Your task to perform on an android device: Add logitech g502 to the cart on costco.com Image 0: 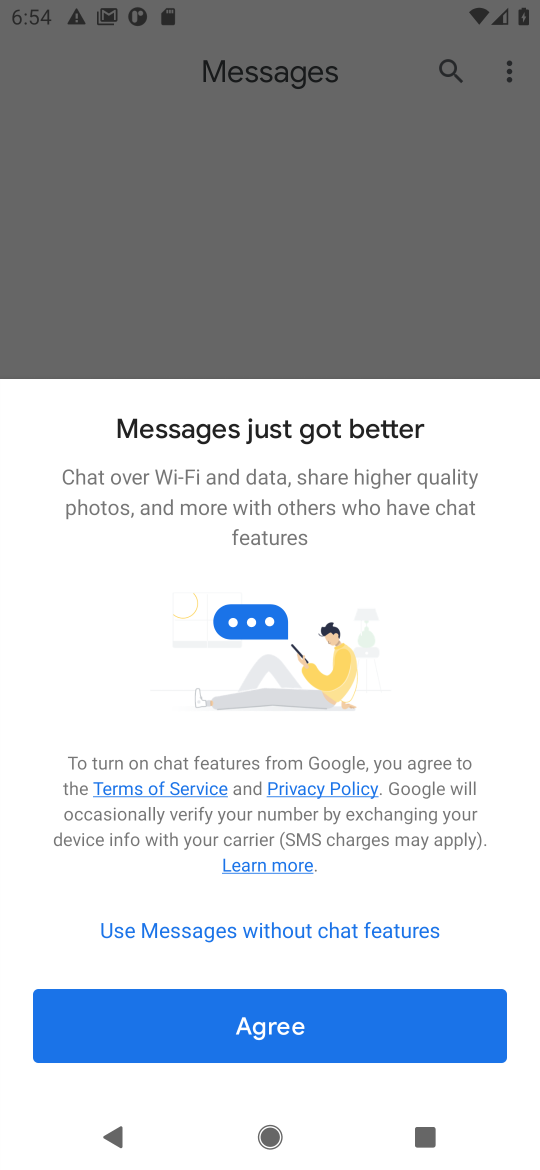
Step 0: press home button
Your task to perform on an android device: Add logitech g502 to the cart on costco.com Image 1: 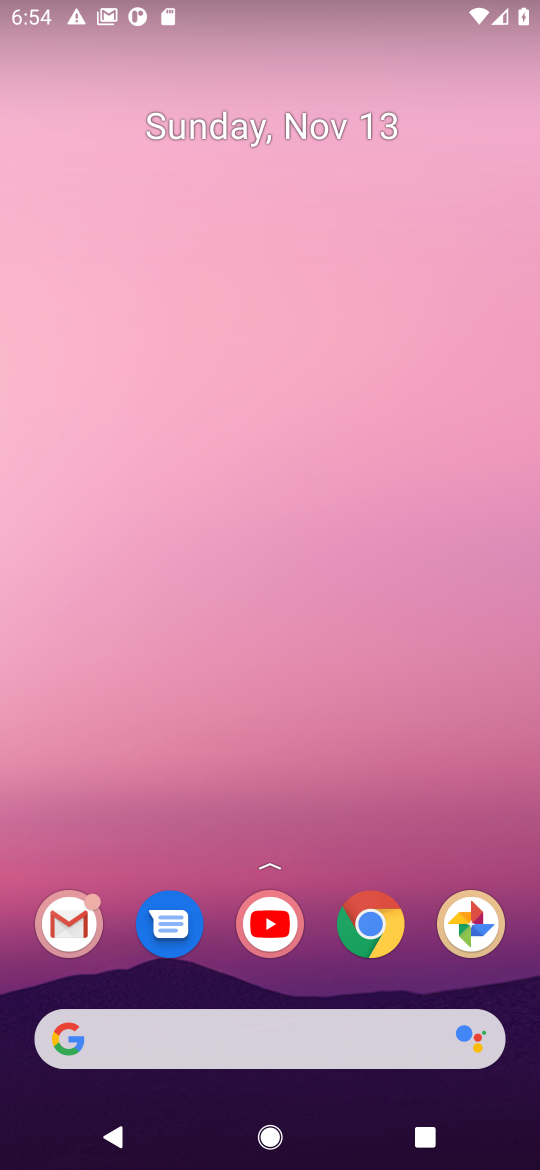
Step 1: click (376, 923)
Your task to perform on an android device: Add logitech g502 to the cart on costco.com Image 2: 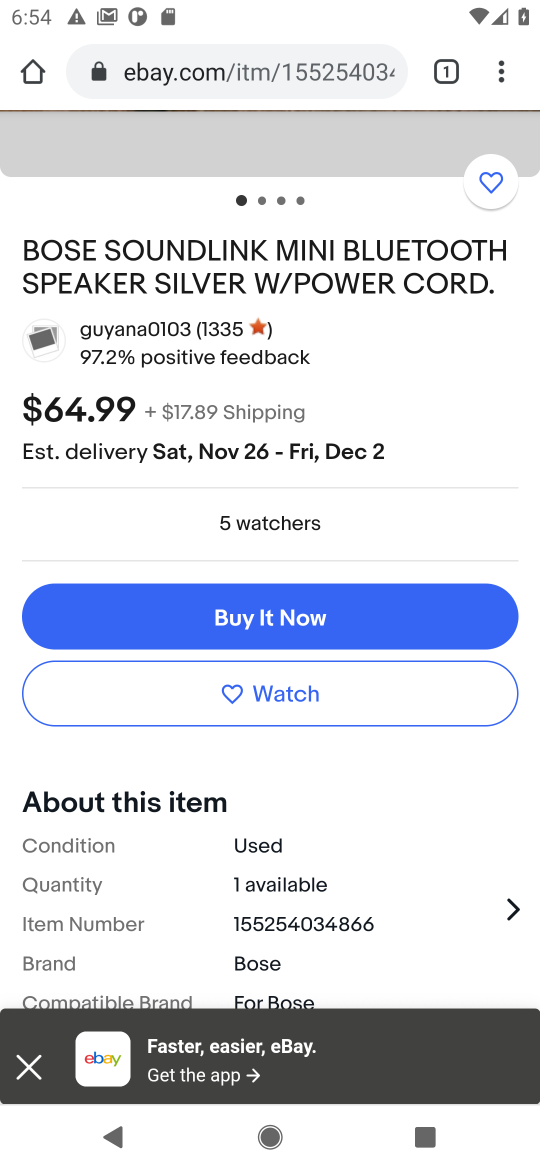
Step 2: click (253, 69)
Your task to perform on an android device: Add logitech g502 to the cart on costco.com Image 3: 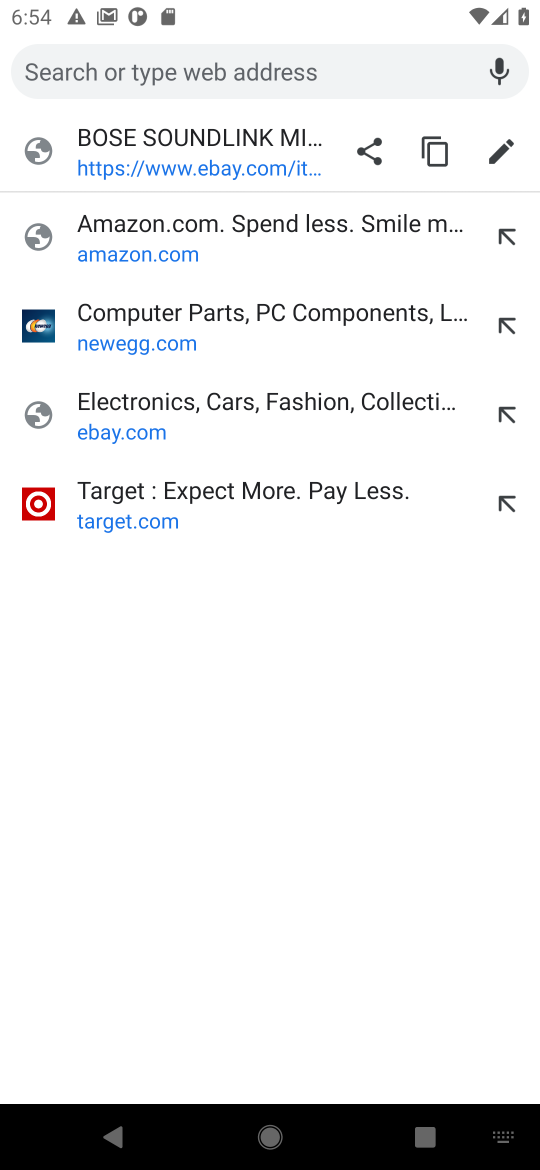
Step 3: type "costco.com"
Your task to perform on an android device: Add logitech g502 to the cart on costco.com Image 4: 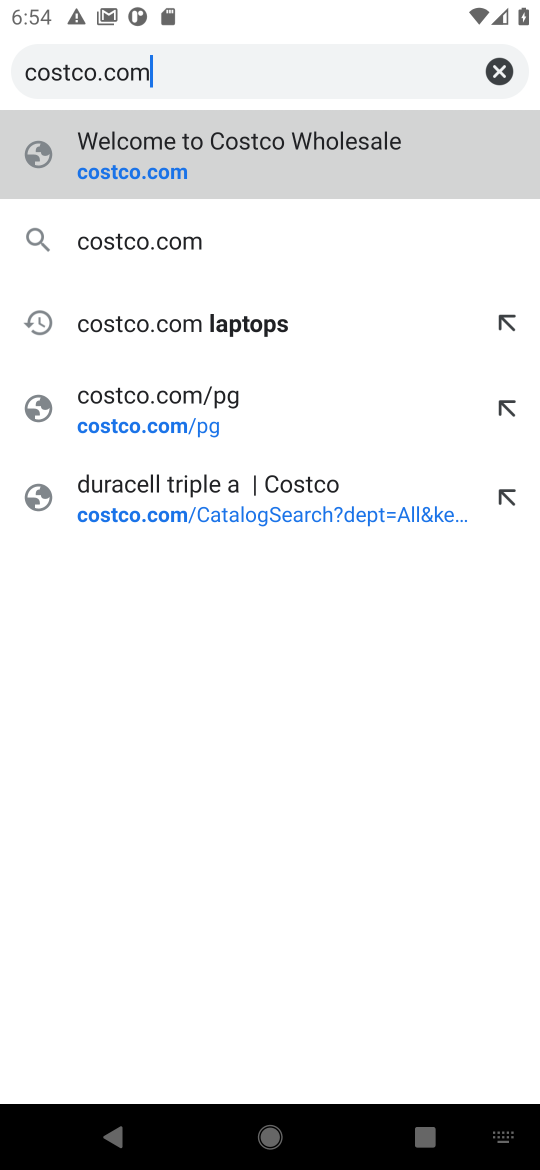
Step 4: click (109, 175)
Your task to perform on an android device: Add logitech g502 to the cart on costco.com Image 5: 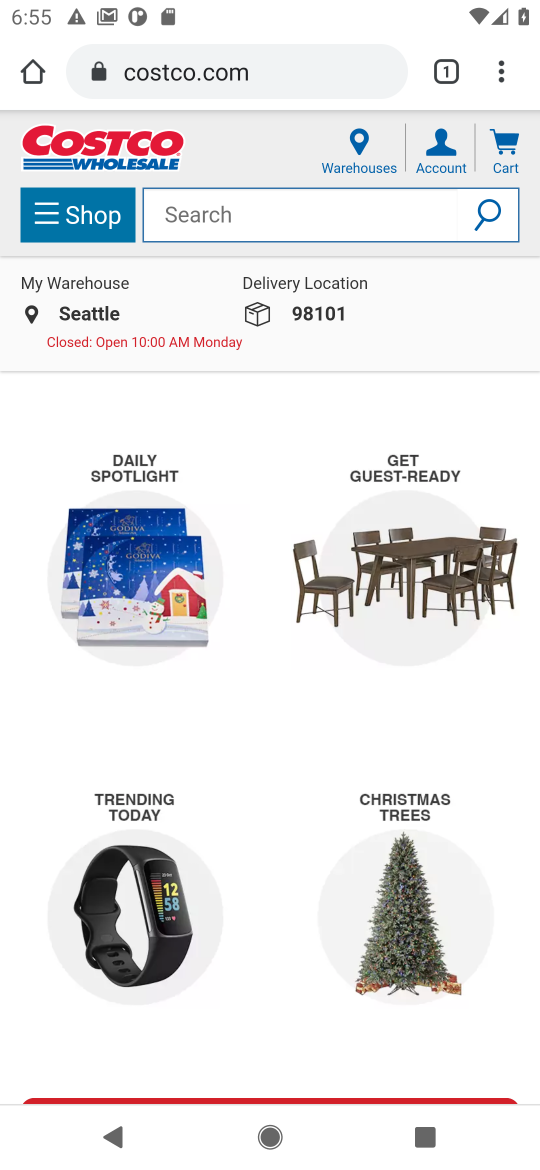
Step 5: click (169, 225)
Your task to perform on an android device: Add logitech g502 to the cart on costco.com Image 6: 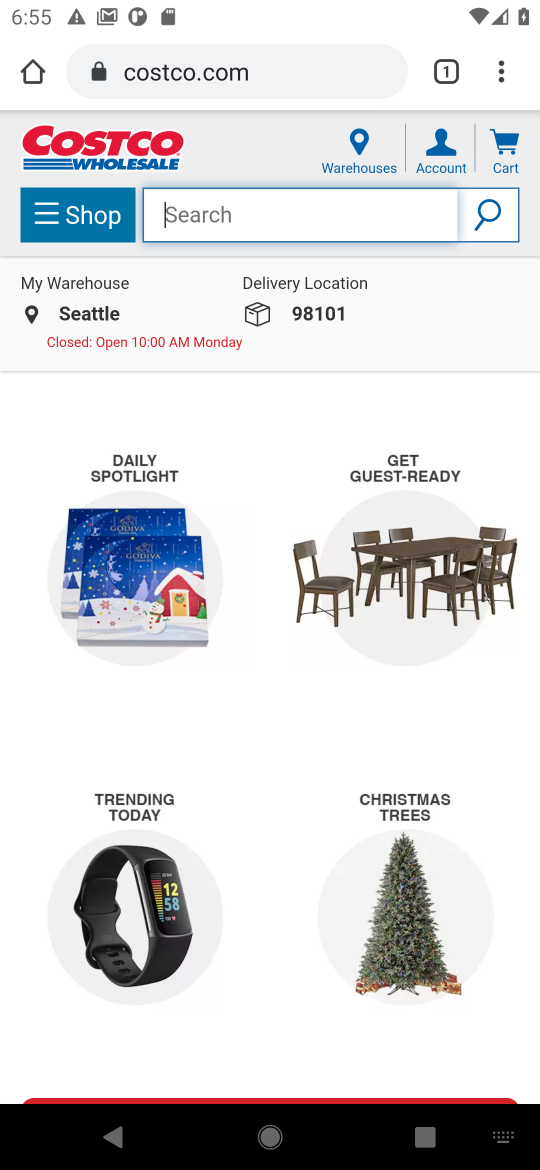
Step 6: type "logitech g502"
Your task to perform on an android device: Add logitech g502 to the cart on costco.com Image 7: 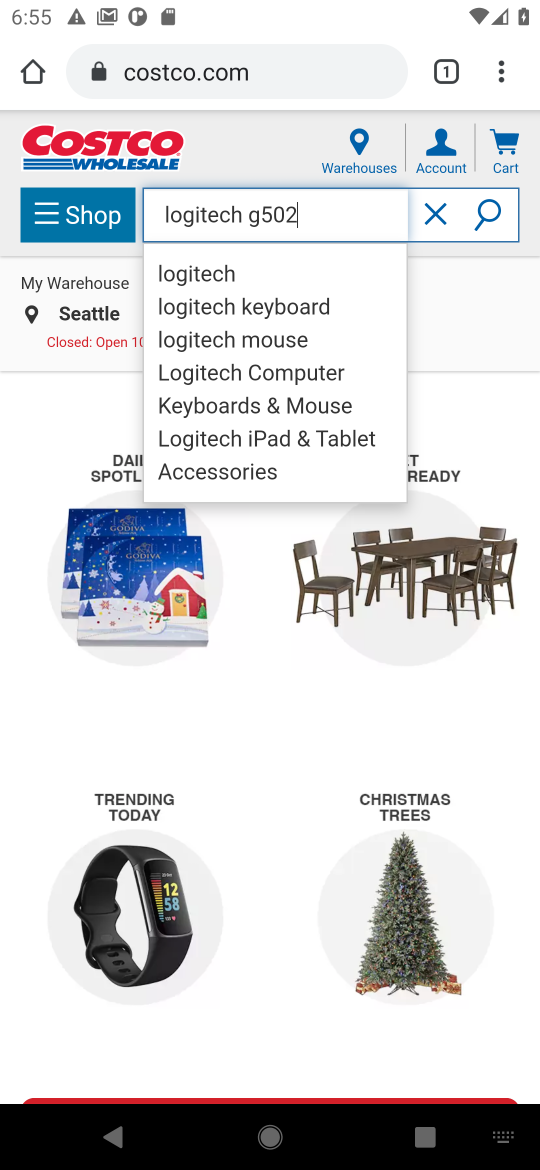
Step 7: click (477, 211)
Your task to perform on an android device: Add logitech g502 to the cart on costco.com Image 8: 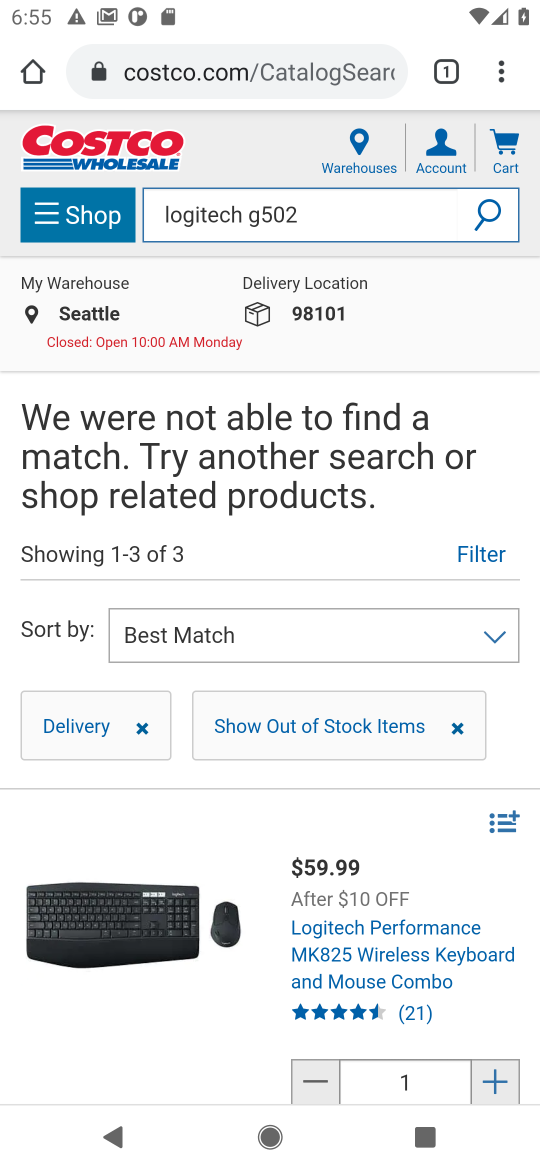
Step 8: task complete